Your task to perform on an android device: Go to Reddit.com Image 0: 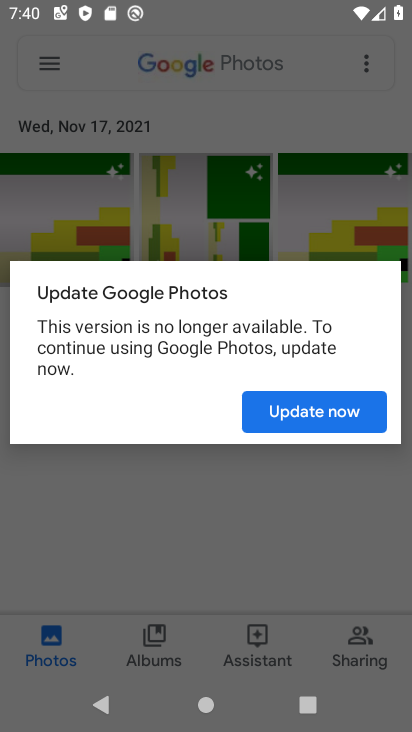
Step 0: press home button
Your task to perform on an android device: Go to Reddit.com Image 1: 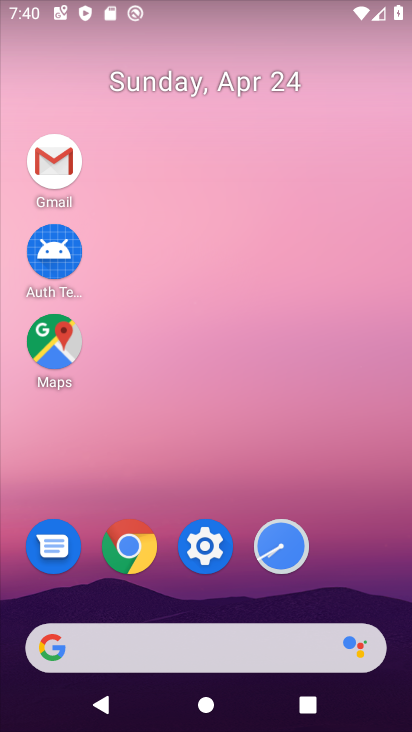
Step 1: click (221, 654)
Your task to perform on an android device: Go to Reddit.com Image 2: 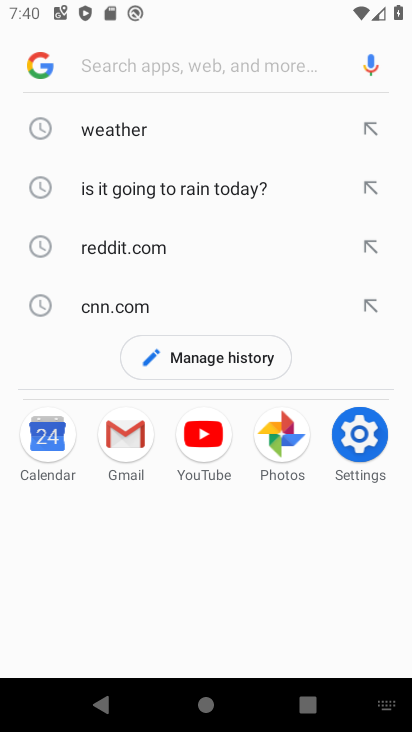
Step 2: click (111, 248)
Your task to perform on an android device: Go to Reddit.com Image 3: 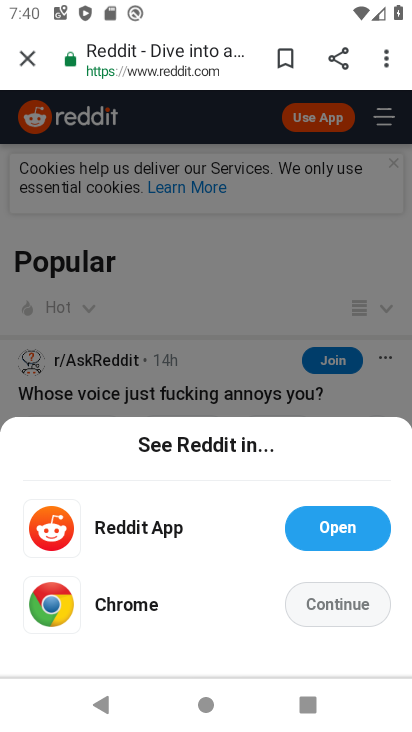
Step 3: task complete